Your task to perform on an android device: Turn off the flashlight Image 0: 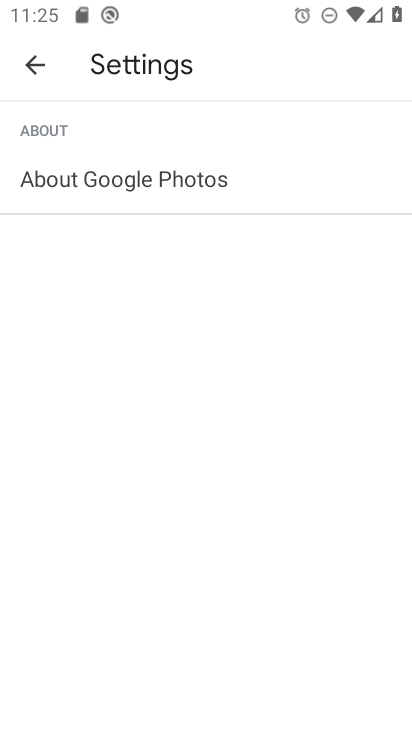
Step 0: press home button
Your task to perform on an android device: Turn off the flashlight Image 1: 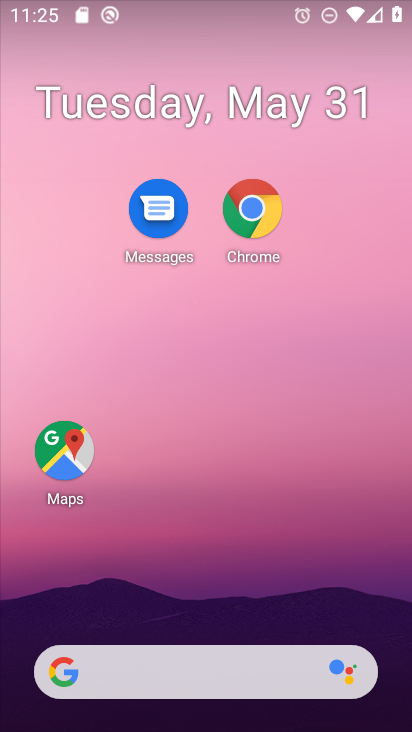
Step 1: drag from (226, 622) to (212, 37)
Your task to perform on an android device: Turn off the flashlight Image 2: 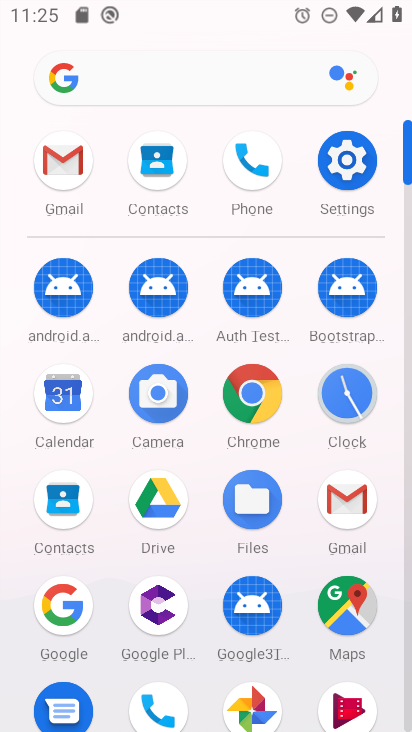
Step 2: click (341, 149)
Your task to perform on an android device: Turn off the flashlight Image 3: 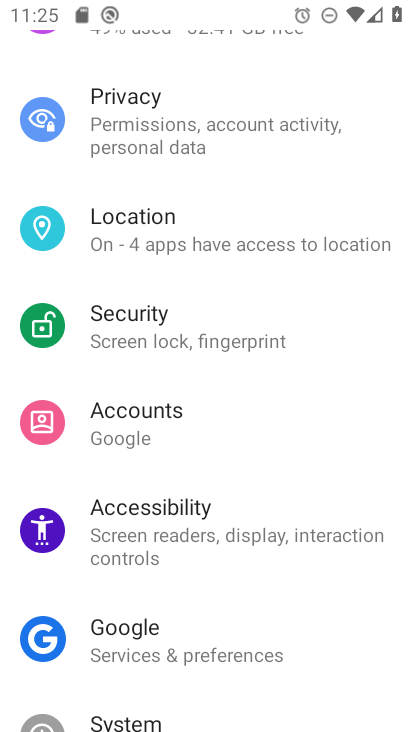
Step 3: drag from (216, 161) to (247, 583)
Your task to perform on an android device: Turn off the flashlight Image 4: 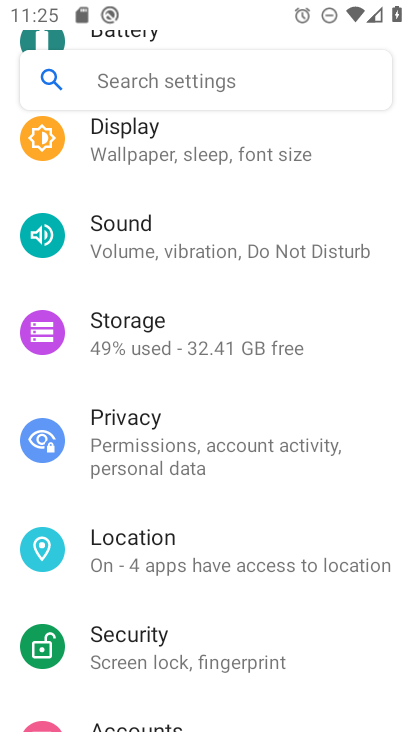
Step 4: click (159, 78)
Your task to perform on an android device: Turn off the flashlight Image 5: 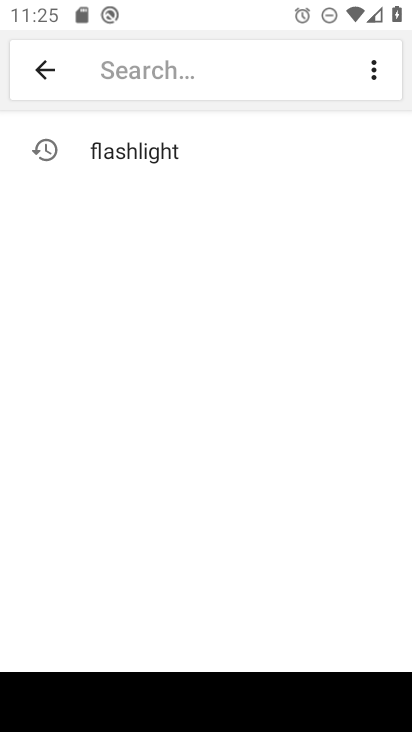
Step 5: click (112, 146)
Your task to perform on an android device: Turn off the flashlight Image 6: 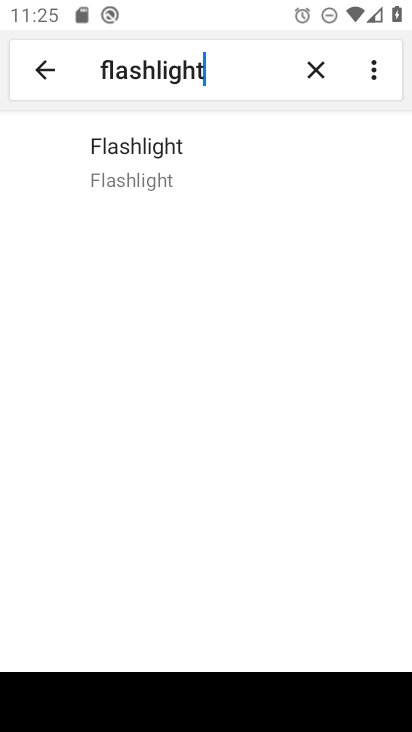
Step 6: click (173, 161)
Your task to perform on an android device: Turn off the flashlight Image 7: 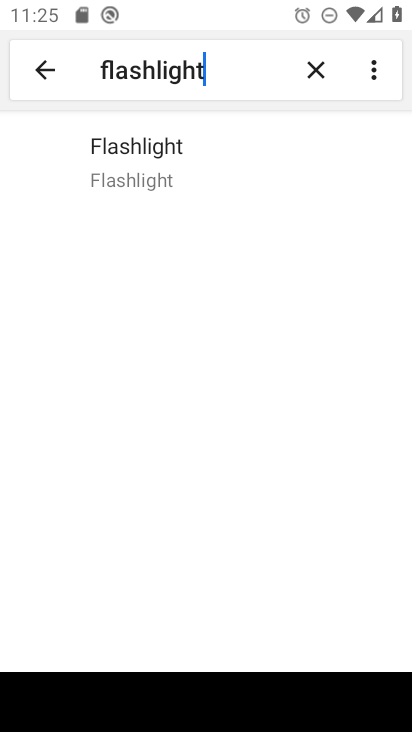
Step 7: task complete